Your task to perform on an android device: open a new tab in the chrome app Image 0: 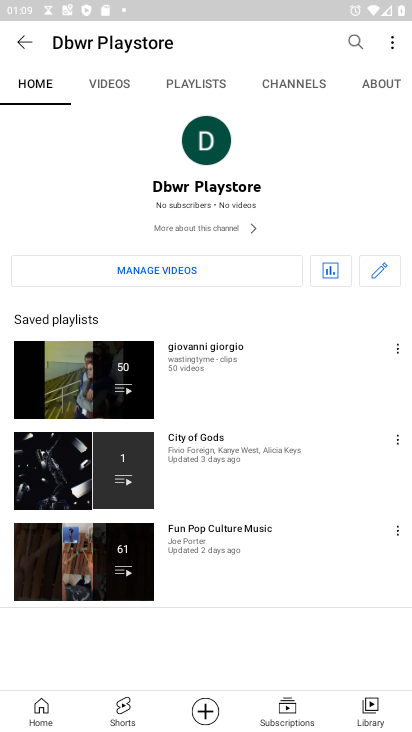
Step 0: press home button
Your task to perform on an android device: open a new tab in the chrome app Image 1: 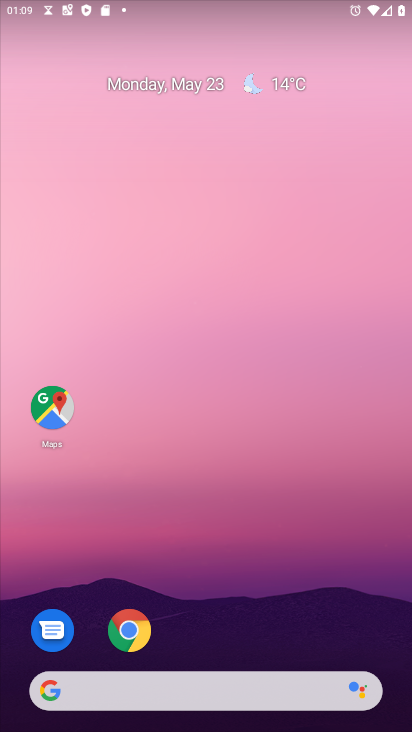
Step 1: click (144, 624)
Your task to perform on an android device: open a new tab in the chrome app Image 2: 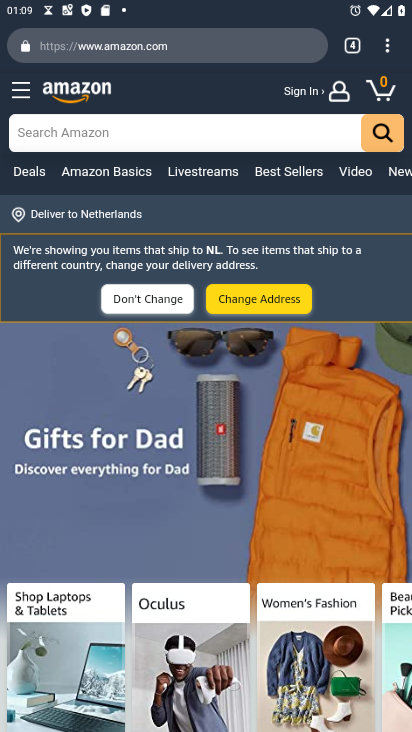
Step 2: click (381, 45)
Your task to perform on an android device: open a new tab in the chrome app Image 3: 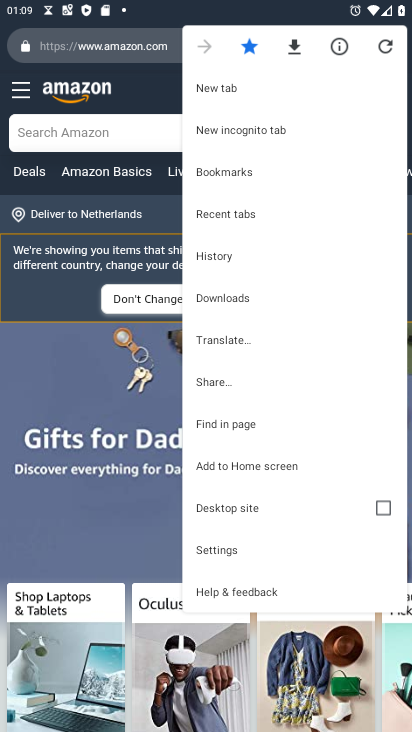
Step 3: click (233, 95)
Your task to perform on an android device: open a new tab in the chrome app Image 4: 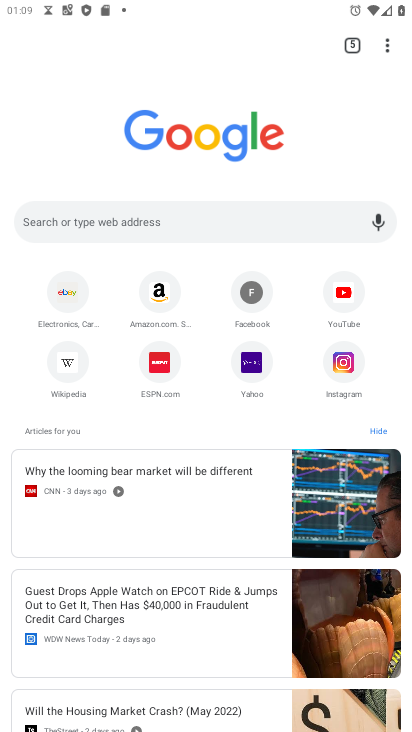
Step 4: task complete